Your task to perform on an android device: Open the web browser Image 0: 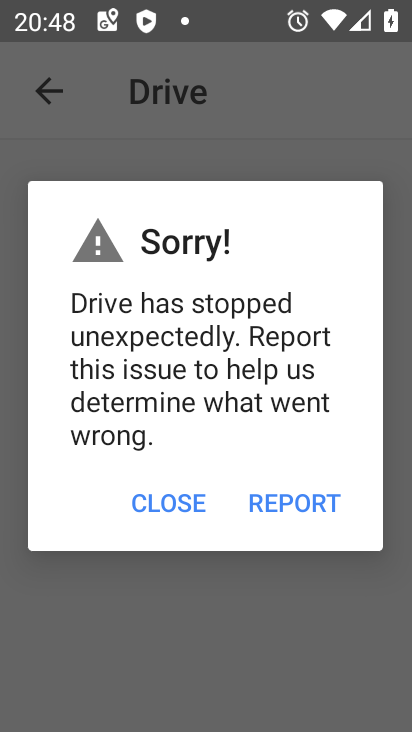
Step 0: press home button
Your task to perform on an android device: Open the web browser Image 1: 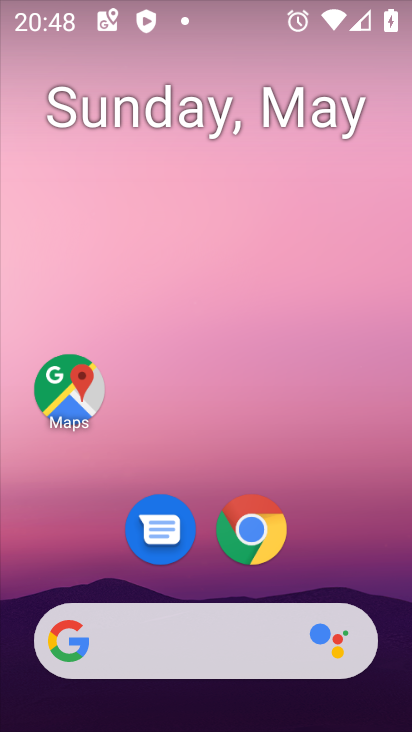
Step 1: click (262, 534)
Your task to perform on an android device: Open the web browser Image 2: 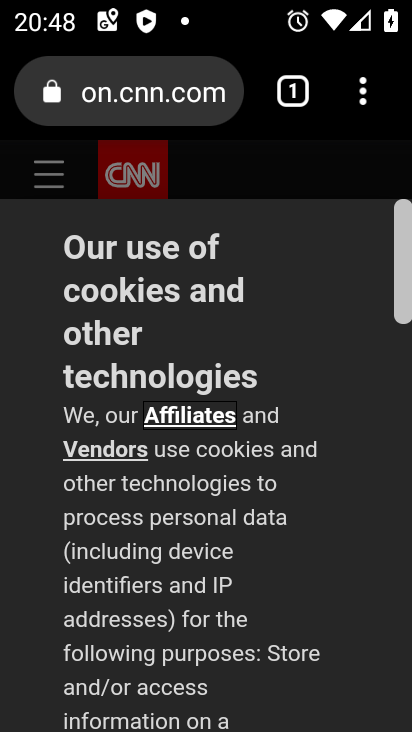
Step 2: task complete